Your task to perform on an android device: refresh tabs in the chrome app Image 0: 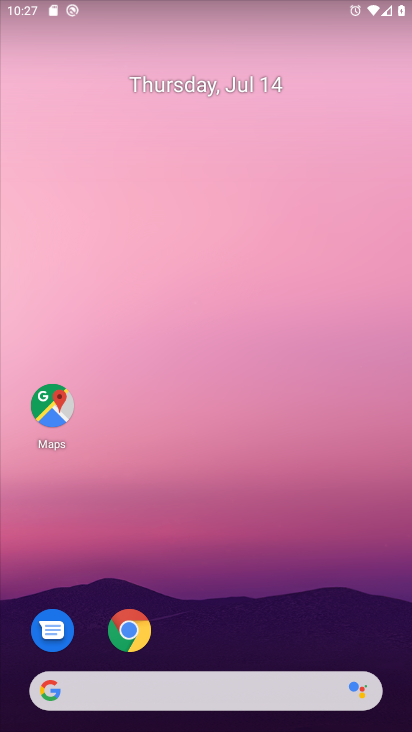
Step 0: drag from (182, 650) to (246, 306)
Your task to perform on an android device: refresh tabs in the chrome app Image 1: 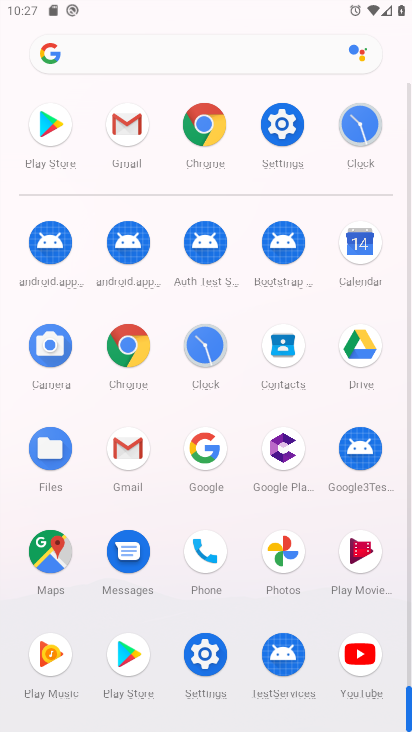
Step 1: click (120, 350)
Your task to perform on an android device: refresh tabs in the chrome app Image 2: 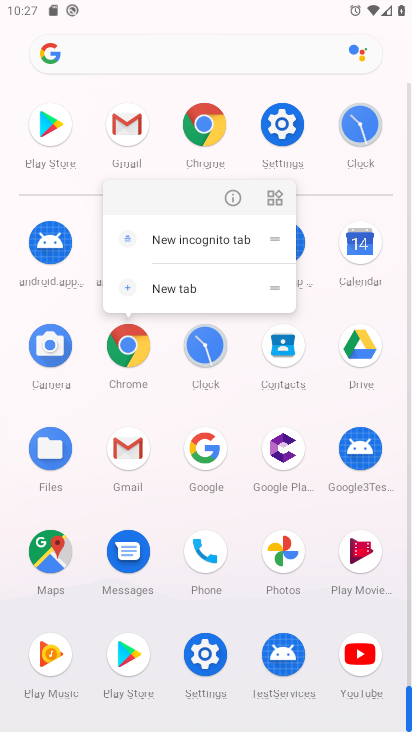
Step 2: click (232, 192)
Your task to perform on an android device: refresh tabs in the chrome app Image 3: 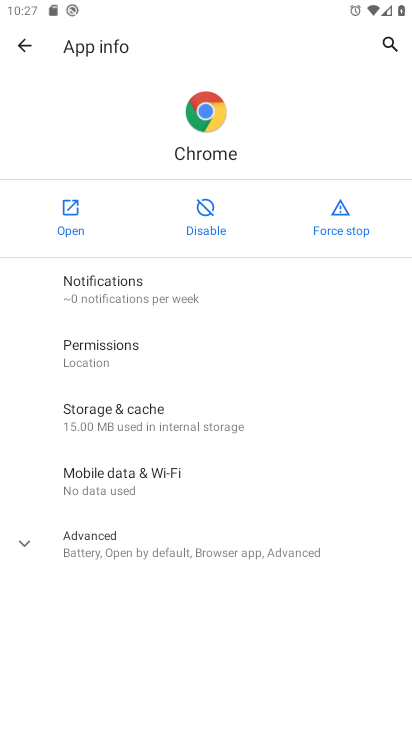
Step 3: click (83, 201)
Your task to perform on an android device: refresh tabs in the chrome app Image 4: 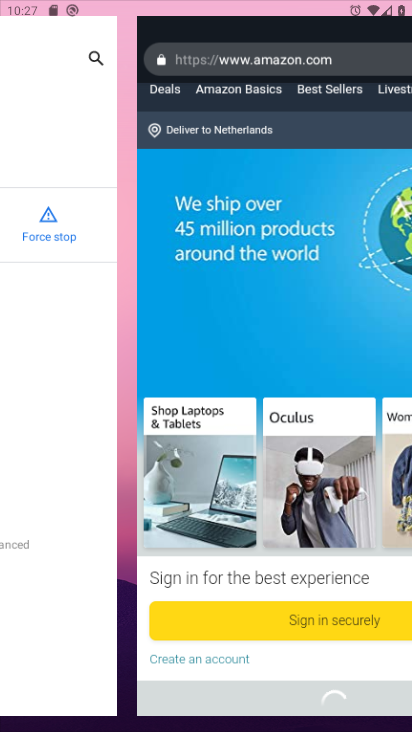
Step 4: drag from (179, 544) to (242, 165)
Your task to perform on an android device: refresh tabs in the chrome app Image 5: 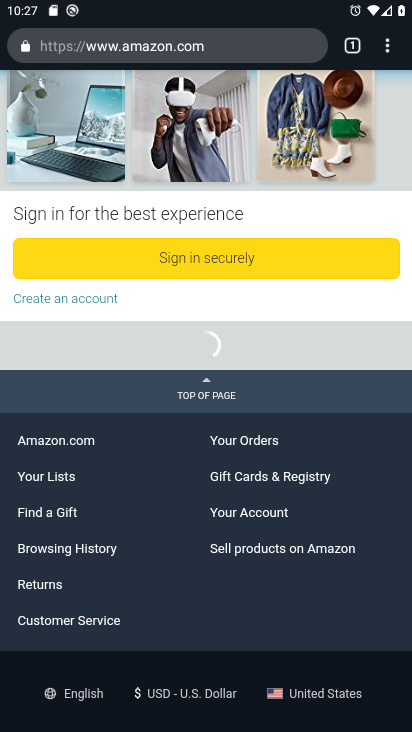
Step 5: drag from (201, 510) to (258, 224)
Your task to perform on an android device: refresh tabs in the chrome app Image 6: 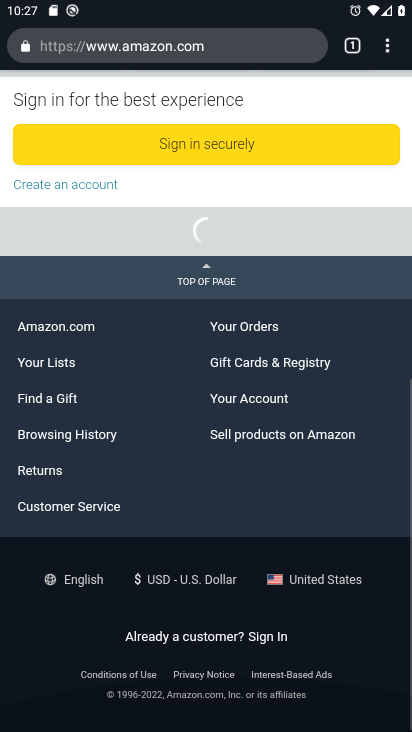
Step 6: drag from (303, 40) to (243, 718)
Your task to perform on an android device: refresh tabs in the chrome app Image 7: 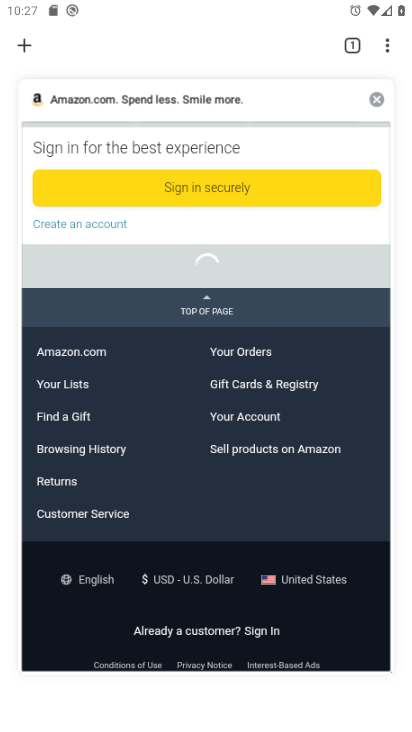
Step 7: click (269, 311)
Your task to perform on an android device: refresh tabs in the chrome app Image 8: 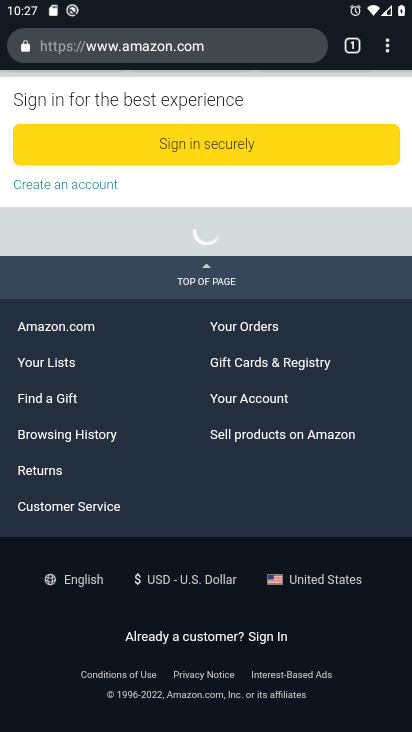
Step 8: click (383, 47)
Your task to perform on an android device: refresh tabs in the chrome app Image 9: 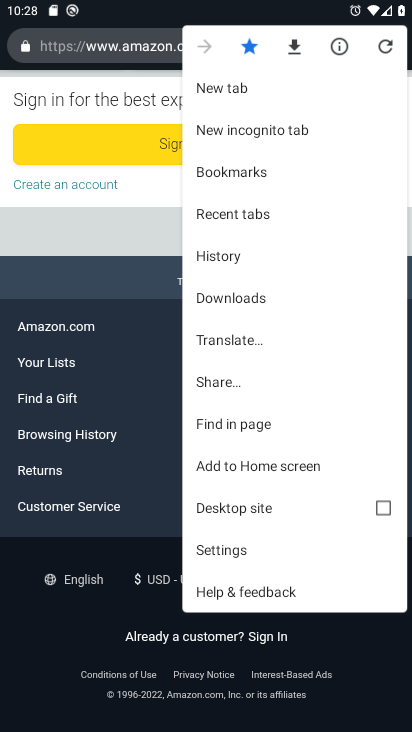
Step 9: click (386, 47)
Your task to perform on an android device: refresh tabs in the chrome app Image 10: 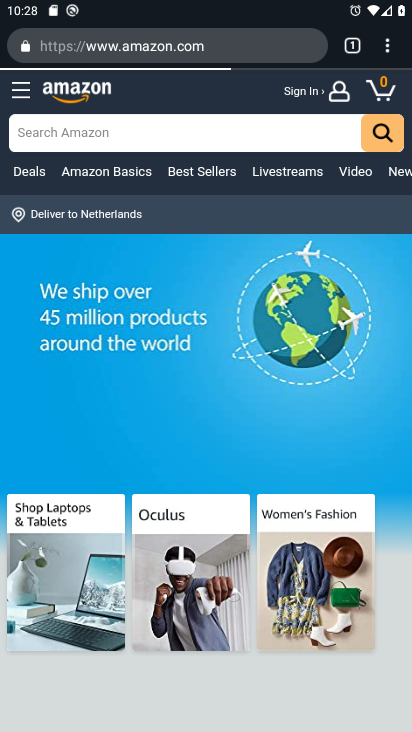
Step 10: task complete